Your task to perform on an android device: open sync settings in chrome Image 0: 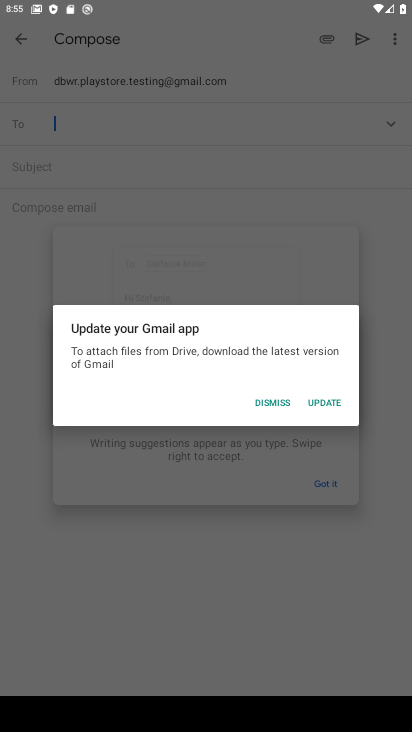
Step 0: press home button
Your task to perform on an android device: open sync settings in chrome Image 1: 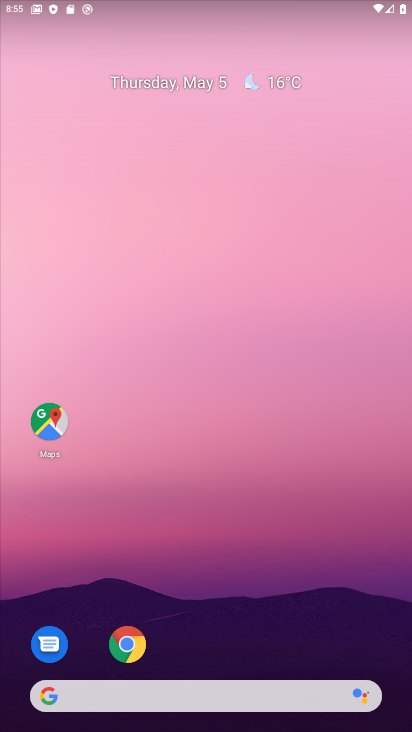
Step 1: drag from (384, 598) to (385, 67)
Your task to perform on an android device: open sync settings in chrome Image 2: 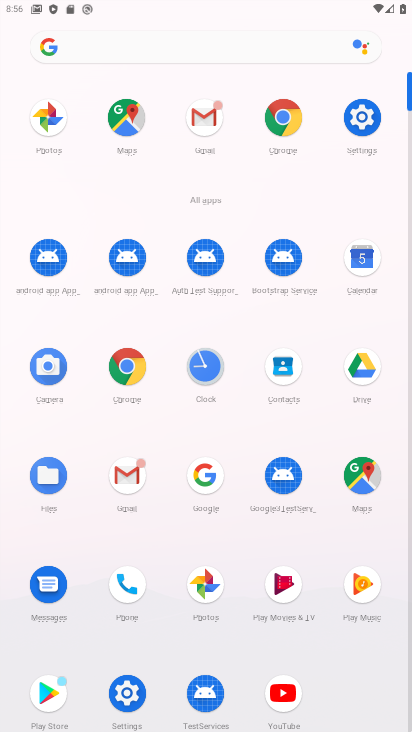
Step 2: click (130, 367)
Your task to perform on an android device: open sync settings in chrome Image 3: 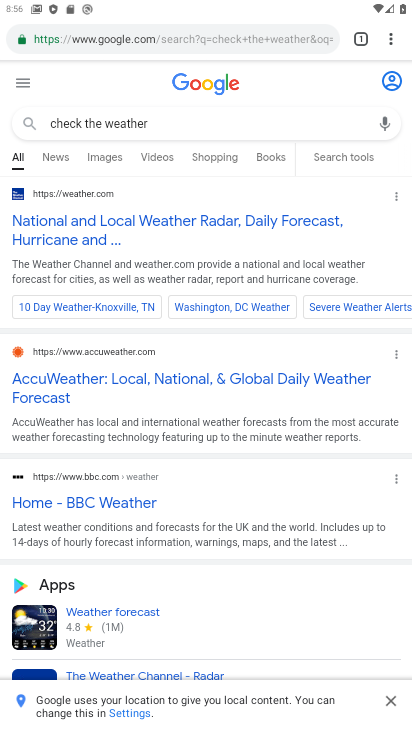
Step 3: drag from (395, 45) to (260, 437)
Your task to perform on an android device: open sync settings in chrome Image 4: 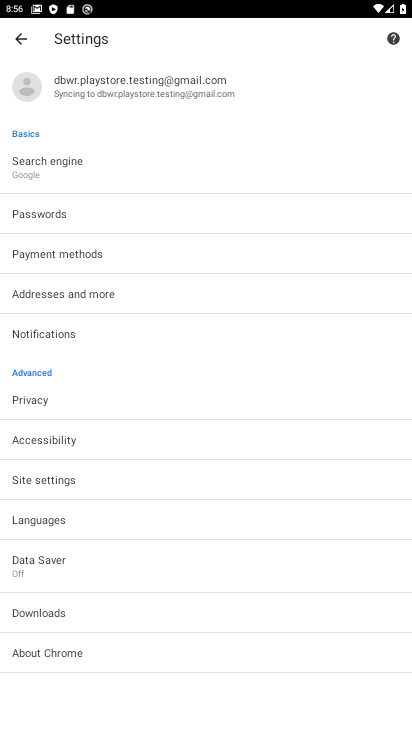
Step 4: click (68, 479)
Your task to perform on an android device: open sync settings in chrome Image 5: 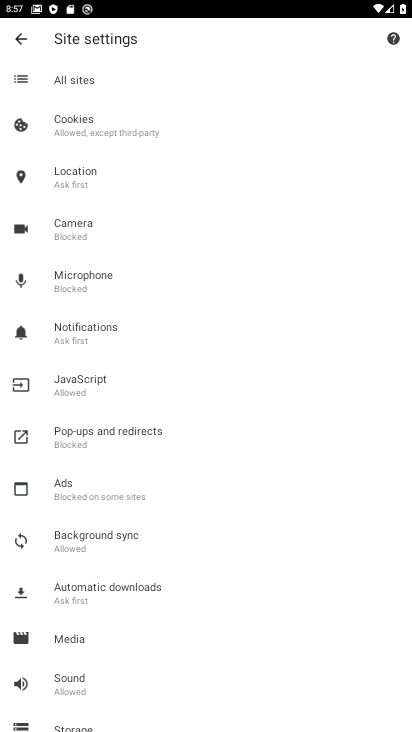
Step 5: drag from (202, 624) to (276, 274)
Your task to perform on an android device: open sync settings in chrome Image 6: 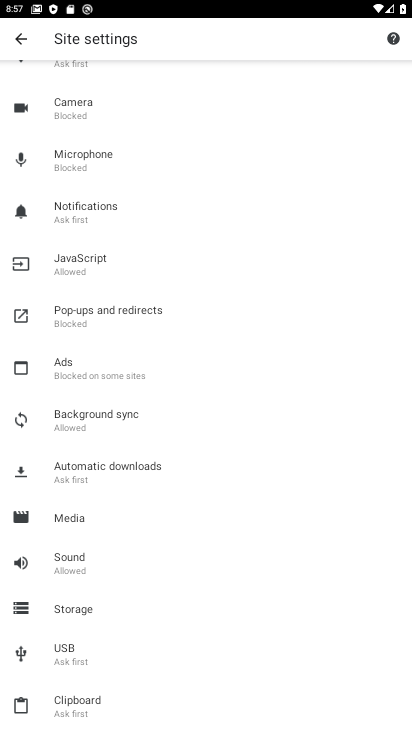
Step 6: click (108, 425)
Your task to perform on an android device: open sync settings in chrome Image 7: 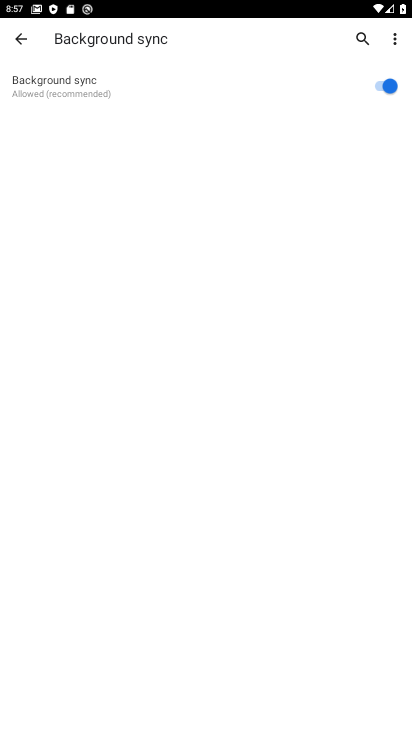
Step 7: task complete